Your task to perform on an android device: open app "Google Chat" (install if not already installed) Image 0: 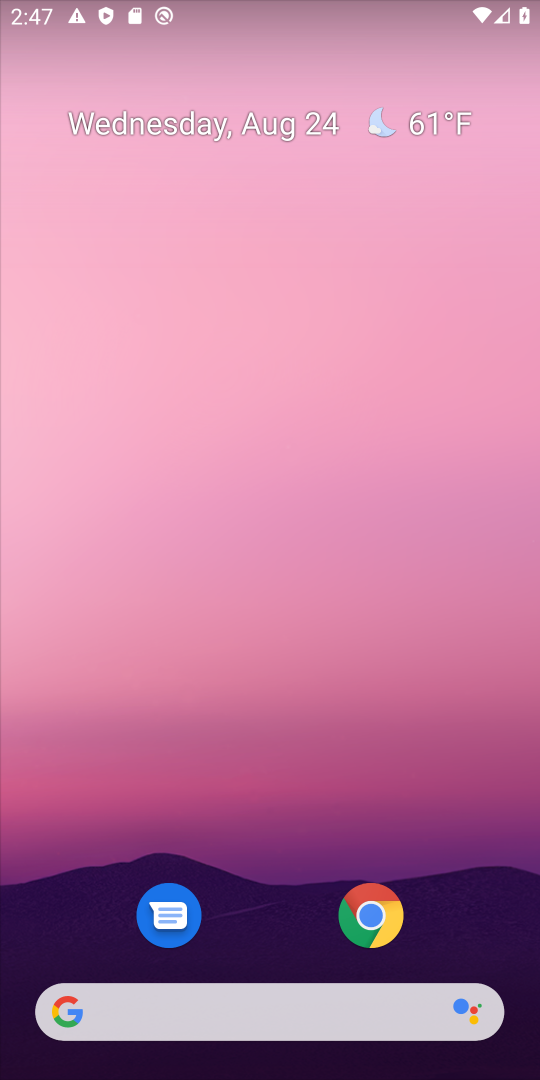
Step 0: drag from (266, 660) to (266, 186)
Your task to perform on an android device: open app "Google Chat" (install if not already installed) Image 1: 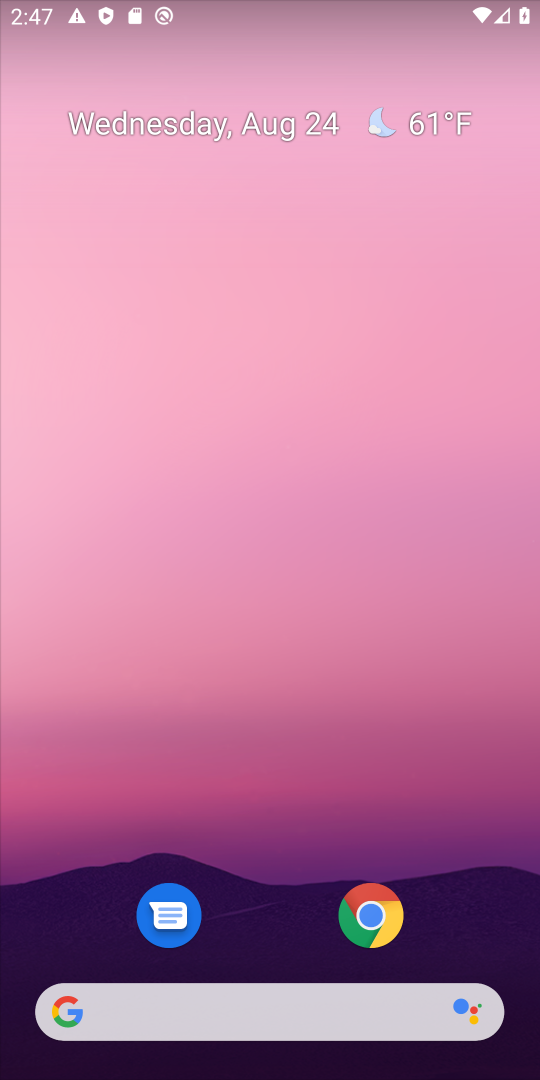
Step 1: drag from (273, 708) to (323, 283)
Your task to perform on an android device: open app "Google Chat" (install if not already installed) Image 2: 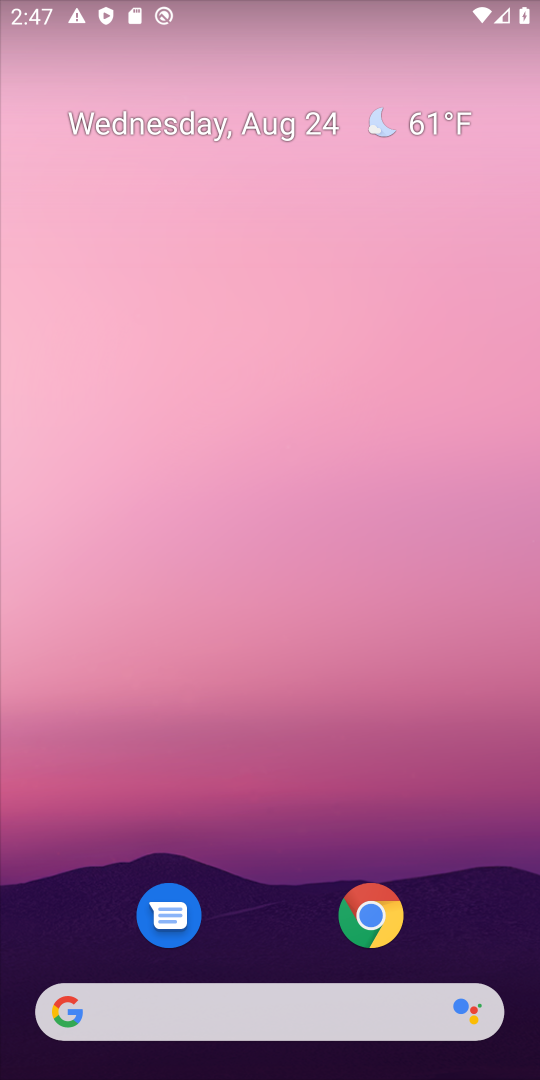
Step 2: drag from (268, 840) to (282, 48)
Your task to perform on an android device: open app "Google Chat" (install if not already installed) Image 3: 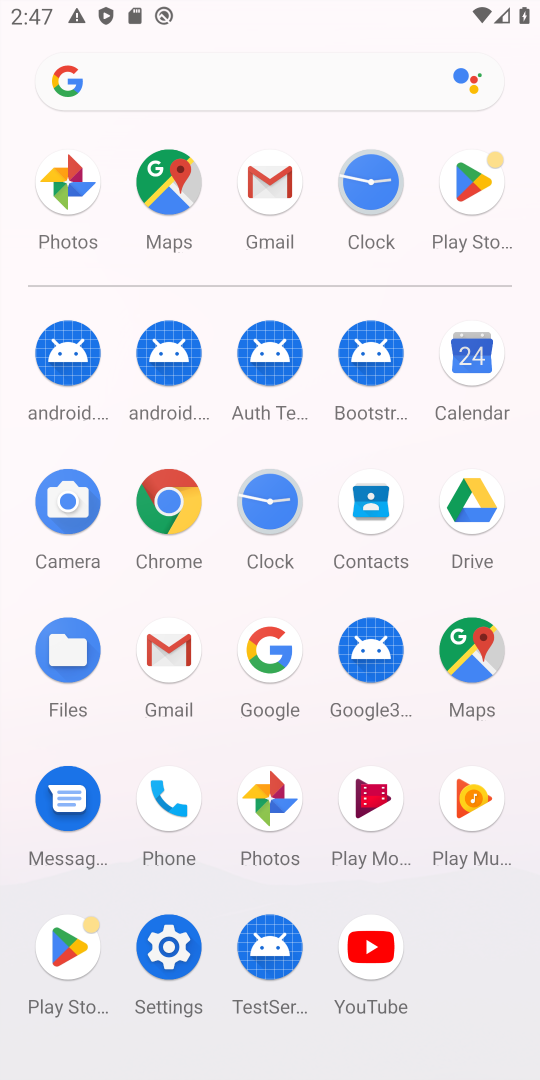
Step 3: click (487, 155)
Your task to perform on an android device: open app "Google Chat" (install if not already installed) Image 4: 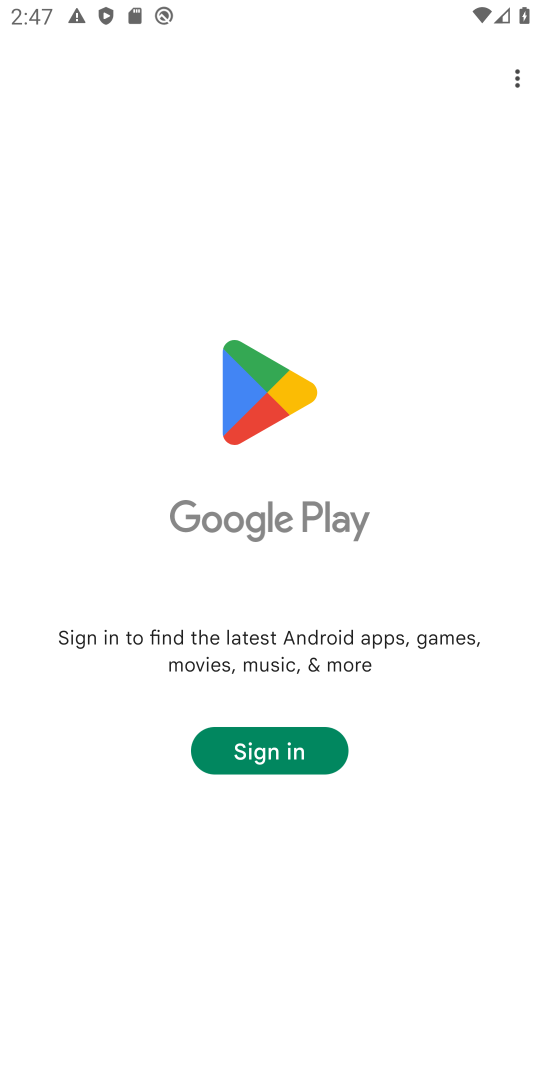
Step 4: task complete